Your task to perform on an android device: toggle improve location accuracy Image 0: 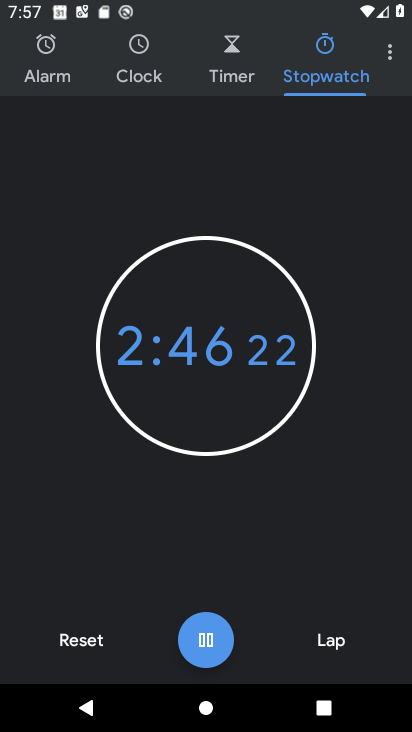
Step 0: press home button
Your task to perform on an android device: toggle improve location accuracy Image 1: 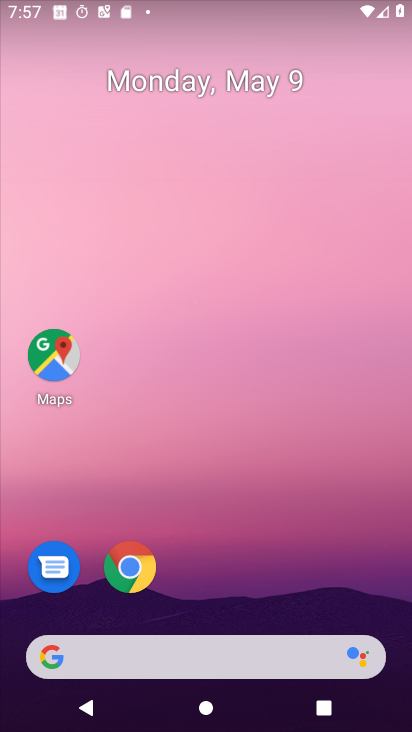
Step 1: drag from (229, 580) to (144, 63)
Your task to perform on an android device: toggle improve location accuracy Image 2: 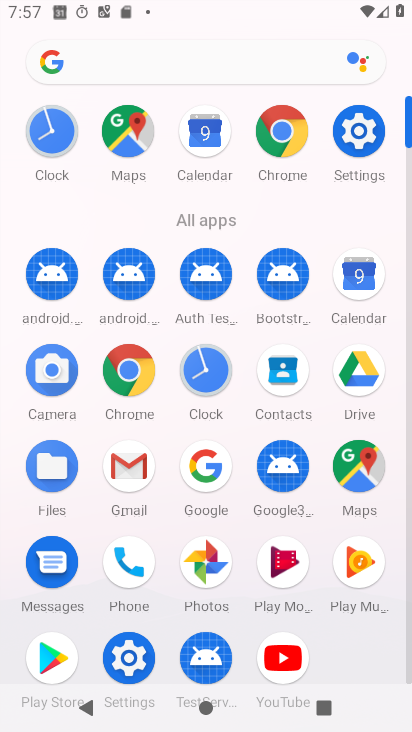
Step 2: click (347, 123)
Your task to perform on an android device: toggle improve location accuracy Image 3: 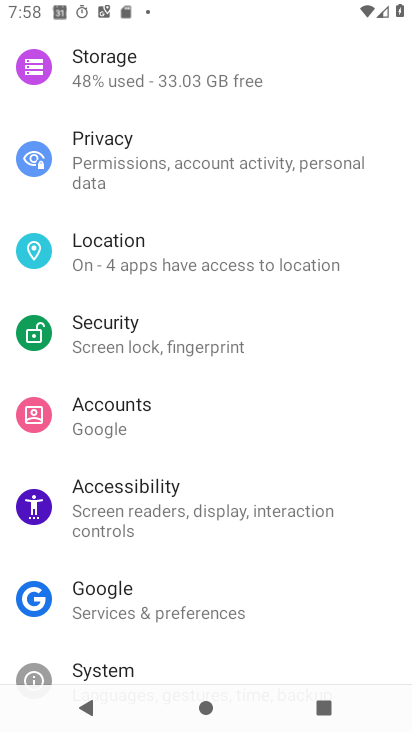
Step 3: click (178, 245)
Your task to perform on an android device: toggle improve location accuracy Image 4: 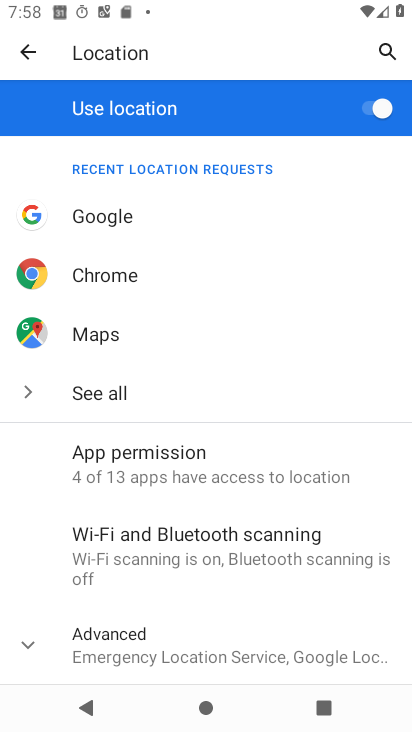
Step 4: click (156, 629)
Your task to perform on an android device: toggle improve location accuracy Image 5: 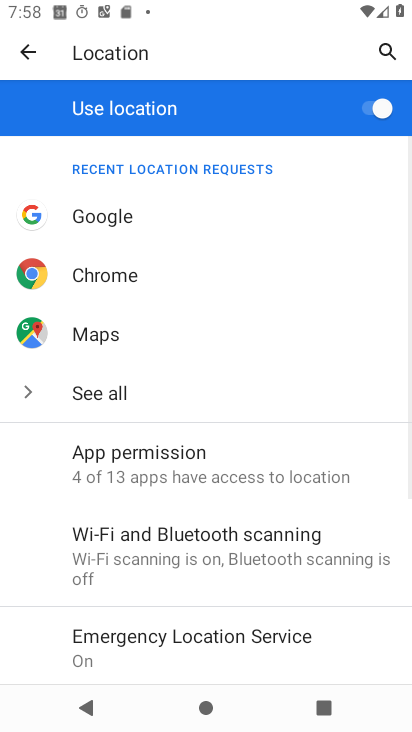
Step 5: drag from (146, 618) to (180, 312)
Your task to perform on an android device: toggle improve location accuracy Image 6: 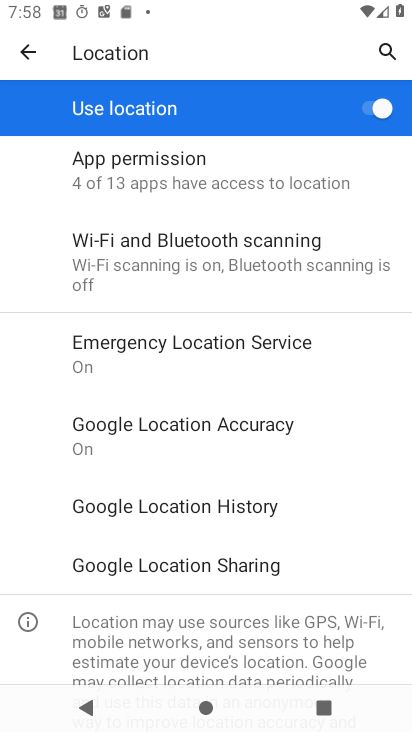
Step 6: click (215, 423)
Your task to perform on an android device: toggle improve location accuracy Image 7: 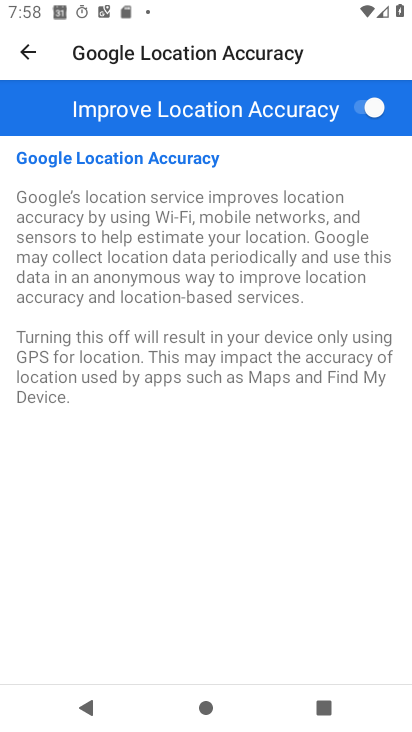
Step 7: click (373, 114)
Your task to perform on an android device: toggle improve location accuracy Image 8: 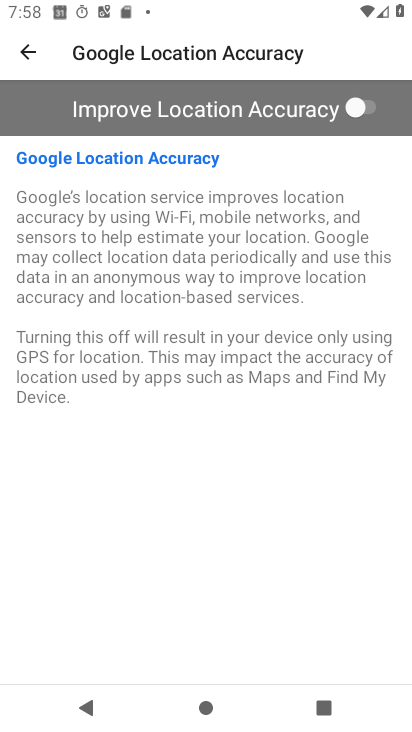
Step 8: task complete